Your task to perform on an android device: allow cookies in the chrome app Image 0: 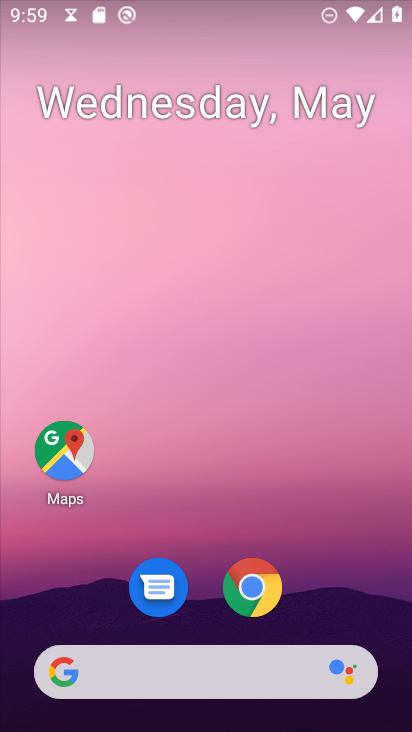
Step 0: click (253, 590)
Your task to perform on an android device: allow cookies in the chrome app Image 1: 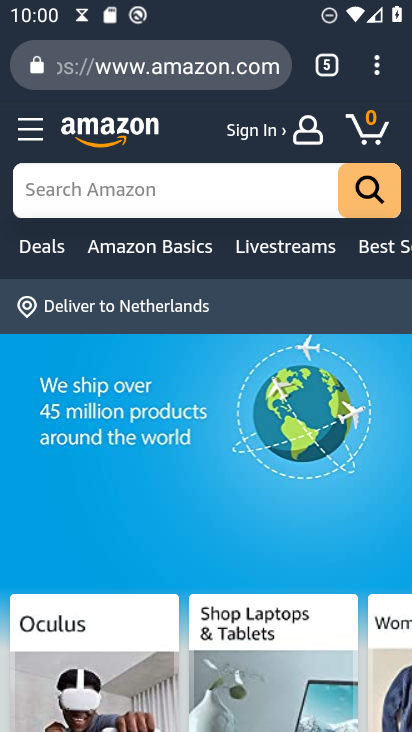
Step 1: click (377, 72)
Your task to perform on an android device: allow cookies in the chrome app Image 2: 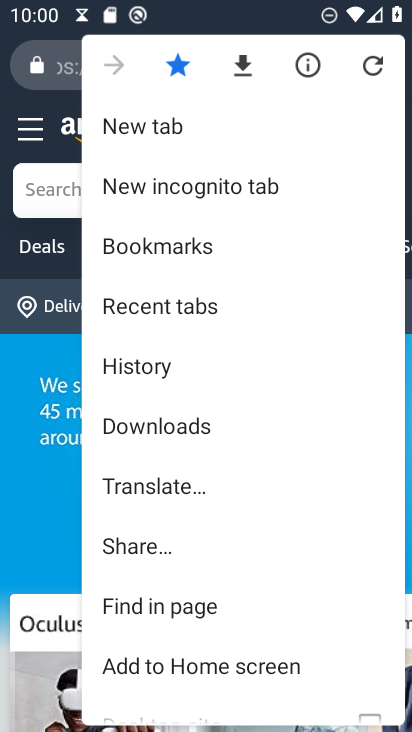
Step 2: drag from (208, 665) to (210, 291)
Your task to perform on an android device: allow cookies in the chrome app Image 3: 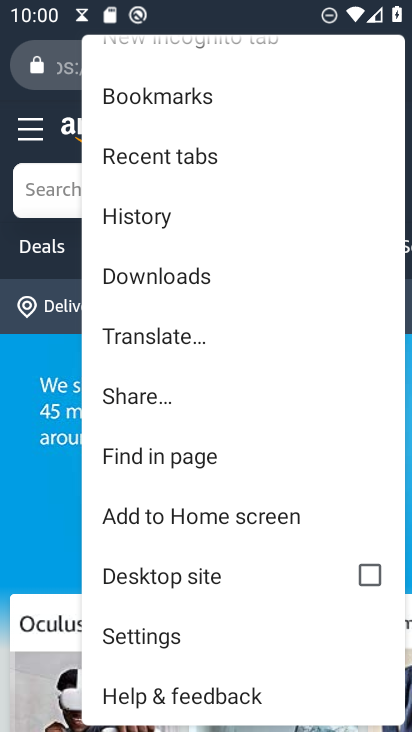
Step 3: click (133, 632)
Your task to perform on an android device: allow cookies in the chrome app Image 4: 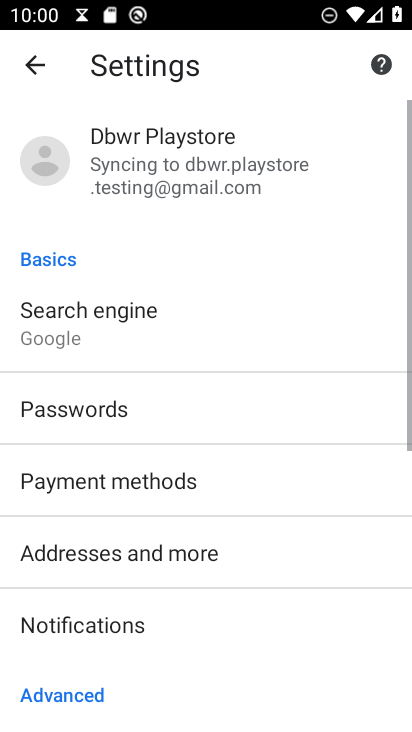
Step 4: drag from (146, 655) to (201, 262)
Your task to perform on an android device: allow cookies in the chrome app Image 5: 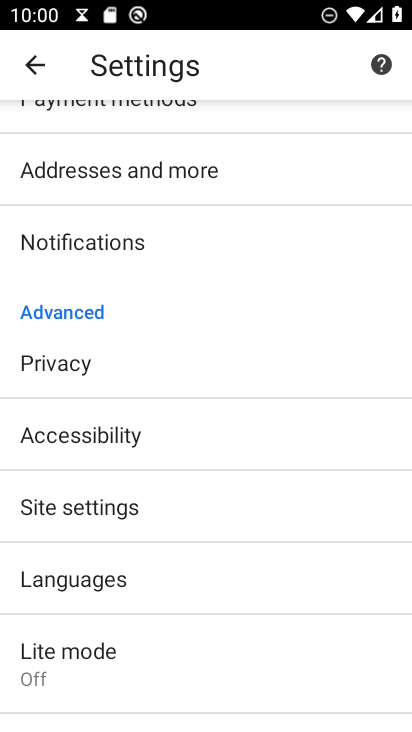
Step 5: click (103, 504)
Your task to perform on an android device: allow cookies in the chrome app Image 6: 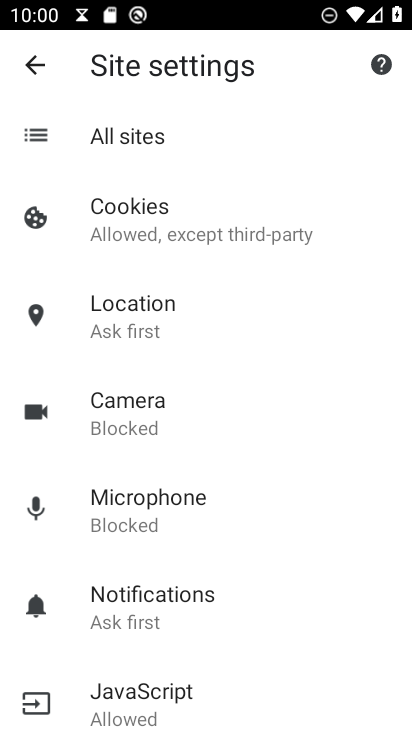
Step 6: click (132, 220)
Your task to perform on an android device: allow cookies in the chrome app Image 7: 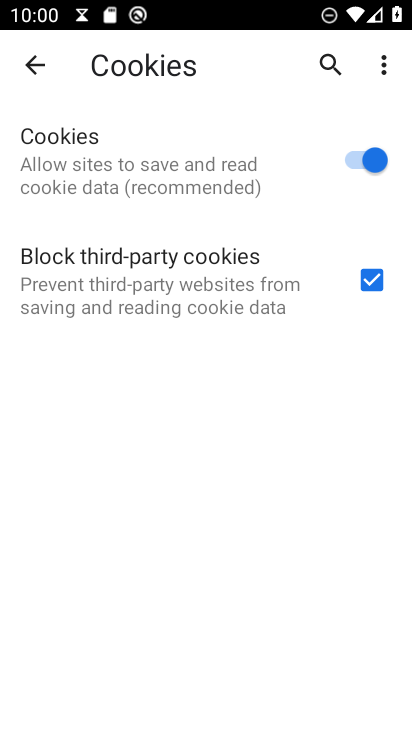
Step 7: task complete